Your task to perform on an android device: turn on notifications settings in the gmail app Image 0: 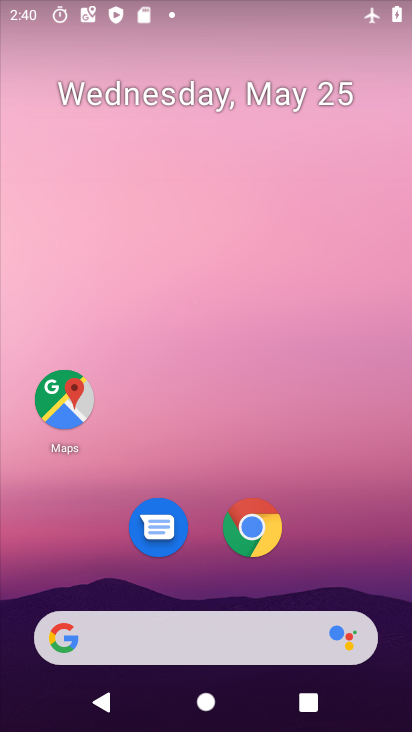
Step 0: drag from (290, 334) to (336, 128)
Your task to perform on an android device: turn on notifications settings in the gmail app Image 1: 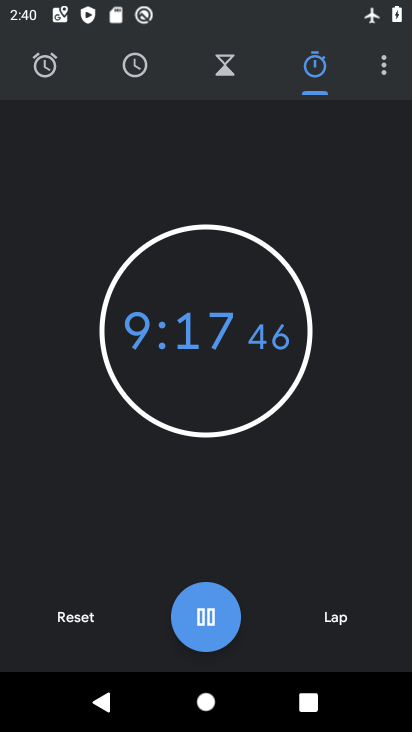
Step 1: click (72, 619)
Your task to perform on an android device: turn on notifications settings in the gmail app Image 2: 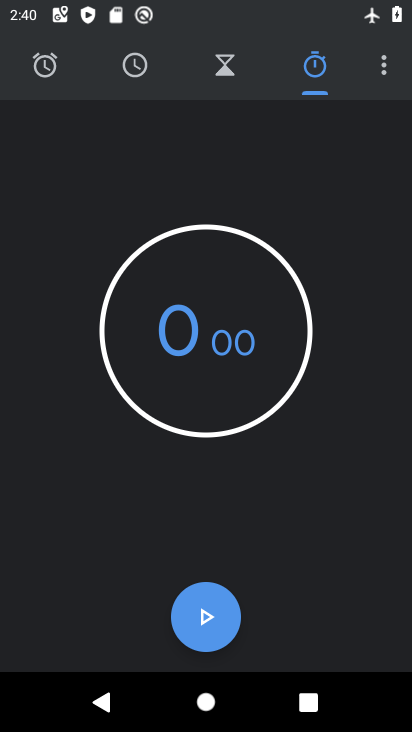
Step 2: press home button
Your task to perform on an android device: turn on notifications settings in the gmail app Image 3: 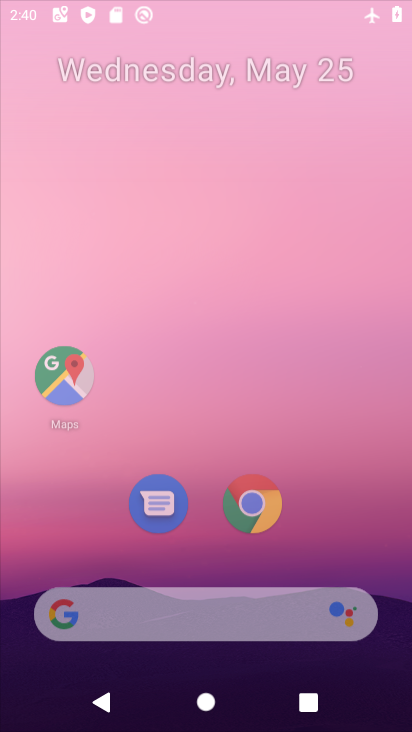
Step 3: drag from (169, 628) to (338, 67)
Your task to perform on an android device: turn on notifications settings in the gmail app Image 4: 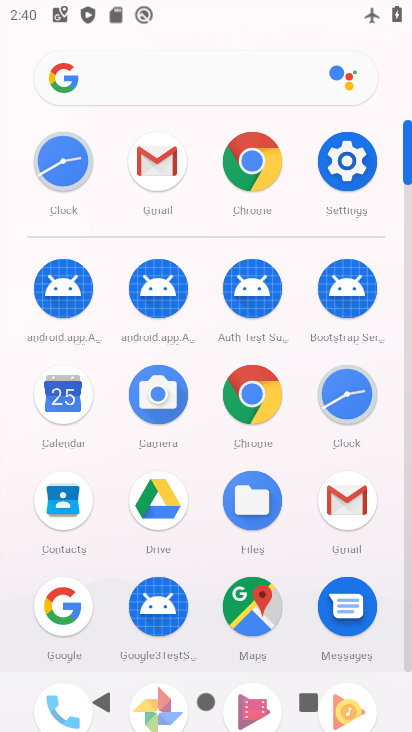
Step 4: click (340, 494)
Your task to perform on an android device: turn on notifications settings in the gmail app Image 5: 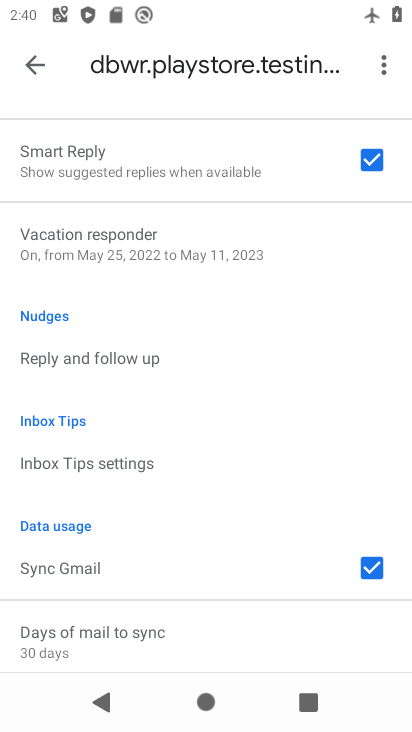
Step 5: drag from (205, 565) to (411, 26)
Your task to perform on an android device: turn on notifications settings in the gmail app Image 6: 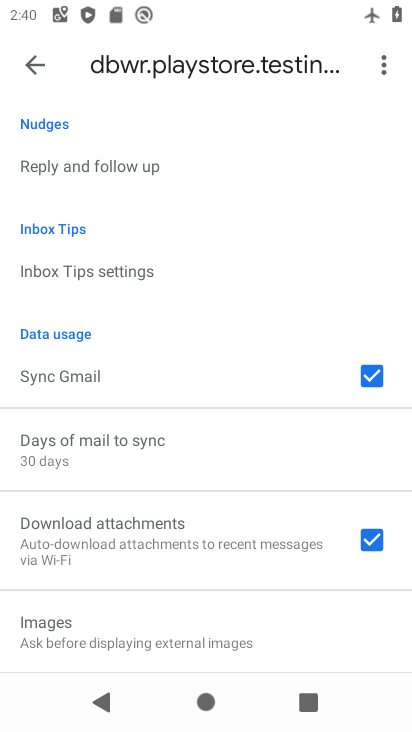
Step 6: drag from (173, 630) to (261, 339)
Your task to perform on an android device: turn on notifications settings in the gmail app Image 7: 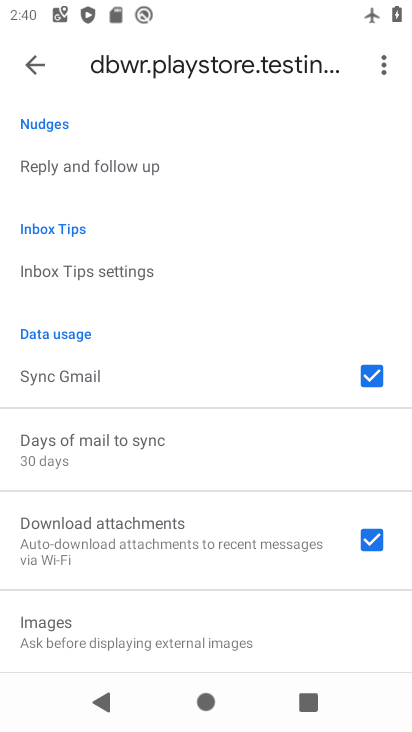
Step 7: drag from (180, 212) to (172, 585)
Your task to perform on an android device: turn on notifications settings in the gmail app Image 8: 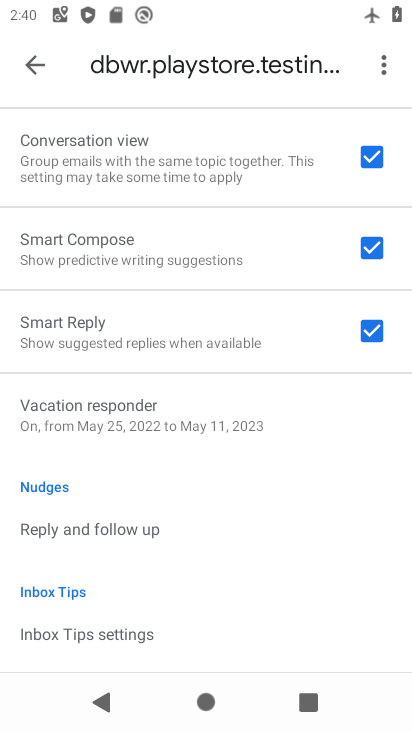
Step 8: drag from (178, 286) to (178, 723)
Your task to perform on an android device: turn on notifications settings in the gmail app Image 9: 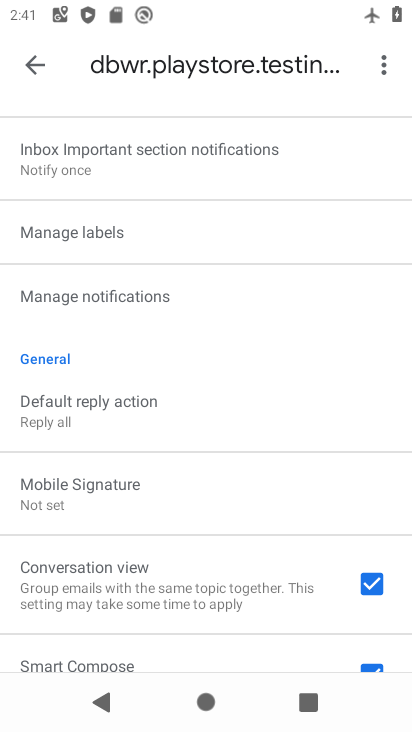
Step 9: click (161, 276)
Your task to perform on an android device: turn on notifications settings in the gmail app Image 10: 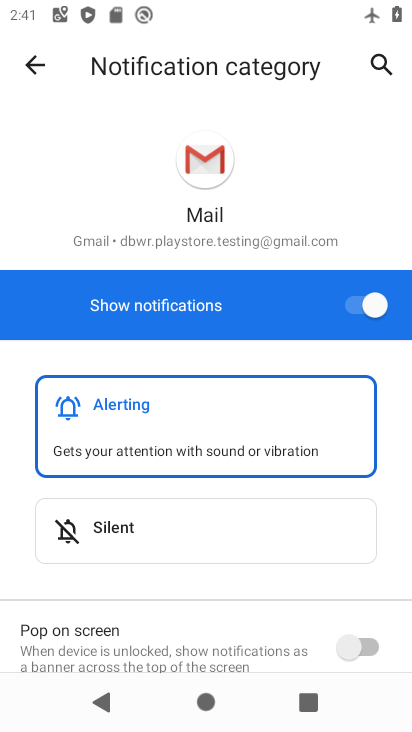
Step 10: task complete